Your task to perform on an android device: move an email to a new category in the gmail app Image 0: 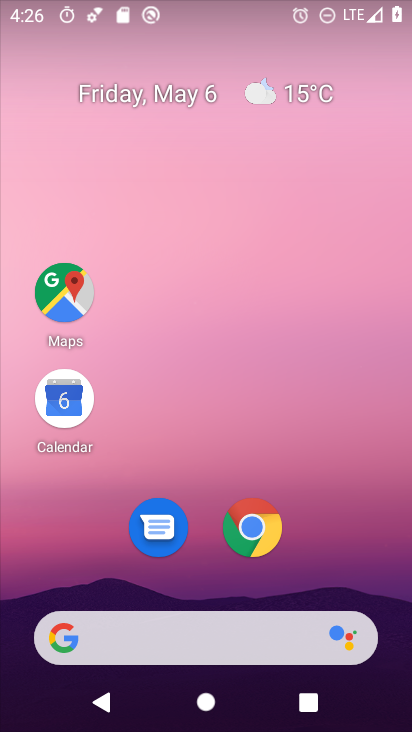
Step 0: drag from (341, 458) to (321, 47)
Your task to perform on an android device: move an email to a new category in the gmail app Image 1: 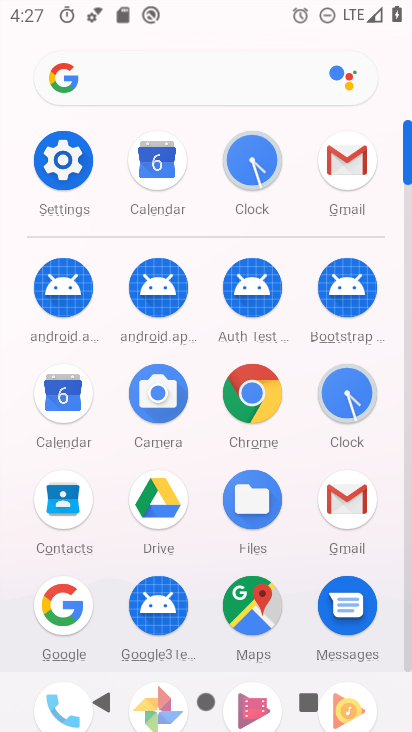
Step 1: click (343, 504)
Your task to perform on an android device: move an email to a new category in the gmail app Image 2: 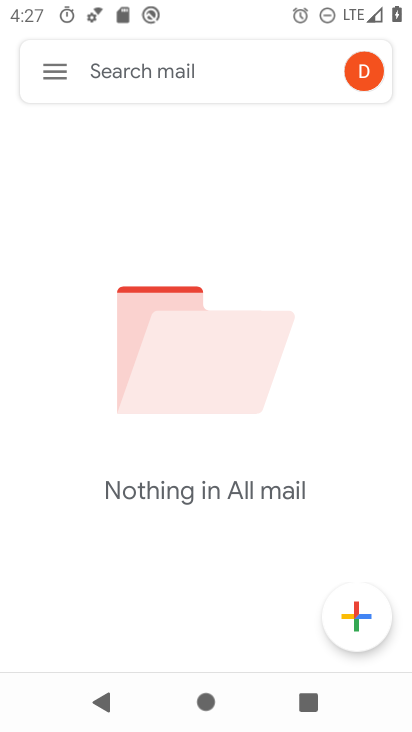
Step 2: click (62, 71)
Your task to perform on an android device: move an email to a new category in the gmail app Image 3: 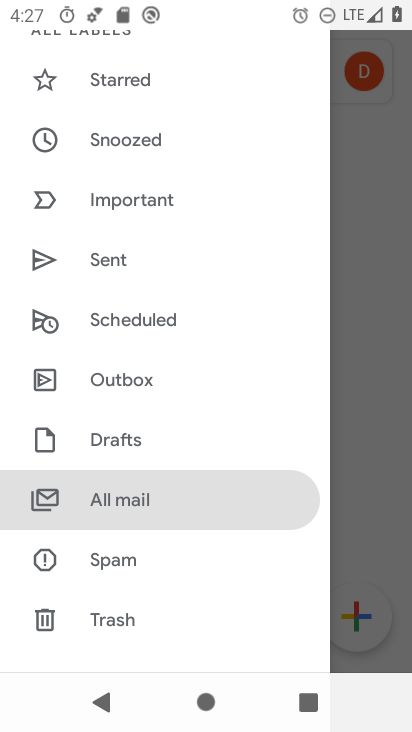
Step 3: click (142, 487)
Your task to perform on an android device: move an email to a new category in the gmail app Image 4: 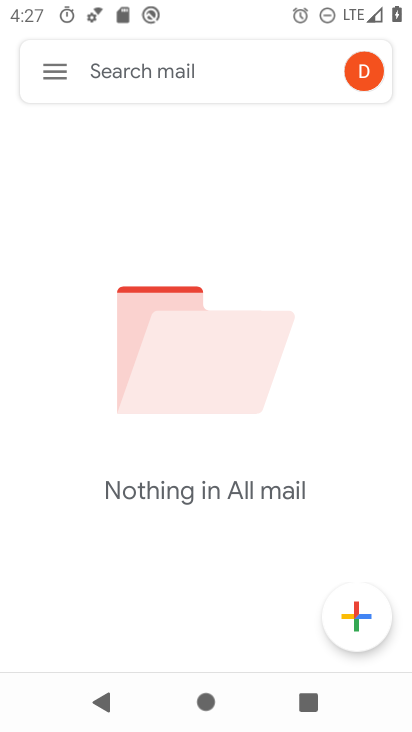
Step 4: task complete